Your task to perform on an android device: Open the Play Movies app and select the watchlist tab. Image 0: 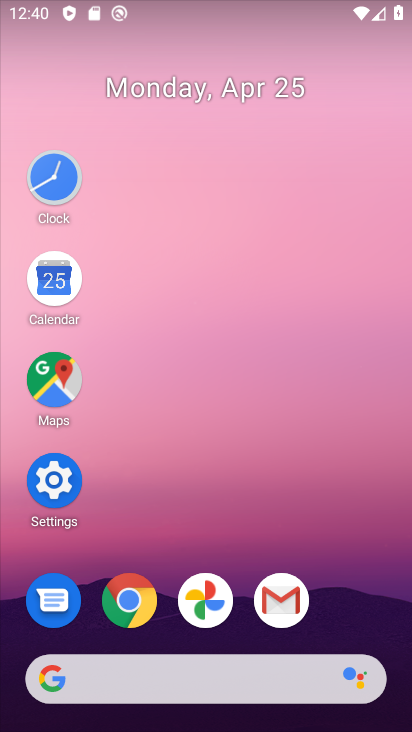
Step 0: drag from (371, 607) to (259, 134)
Your task to perform on an android device: Open the Play Movies app and select the watchlist tab. Image 1: 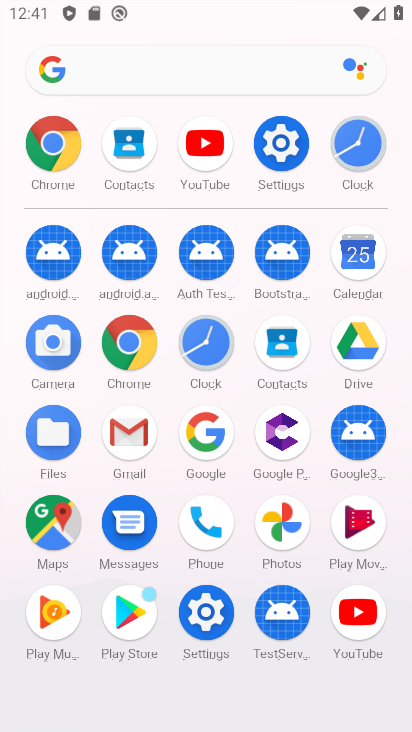
Step 1: click (354, 537)
Your task to perform on an android device: Open the Play Movies app and select the watchlist tab. Image 2: 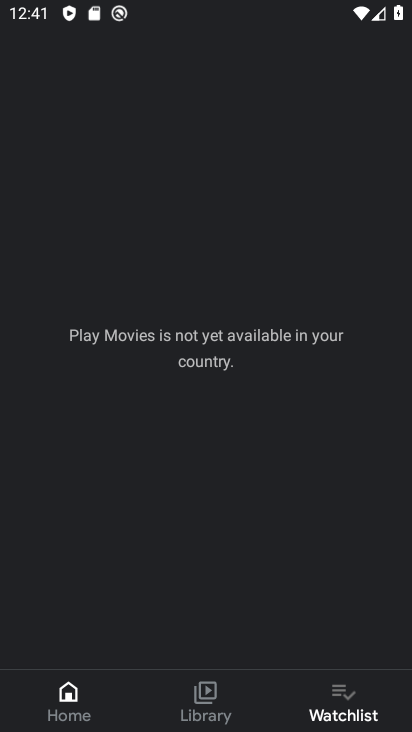
Step 2: click (332, 705)
Your task to perform on an android device: Open the Play Movies app and select the watchlist tab. Image 3: 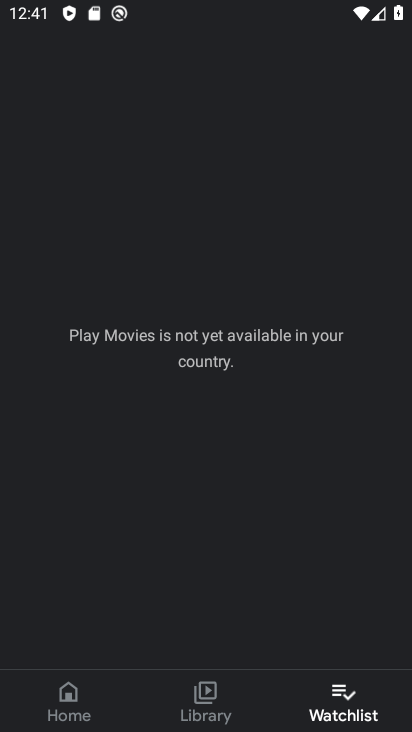
Step 3: task complete